Your task to perform on an android device: Check the news Image 0: 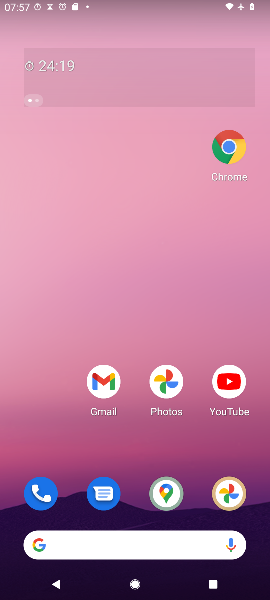
Step 0: press home button
Your task to perform on an android device: Check the news Image 1: 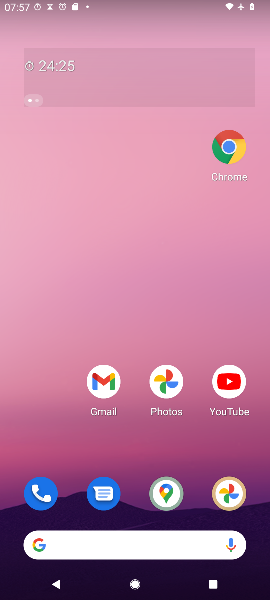
Step 1: click (37, 550)
Your task to perform on an android device: Check the news Image 2: 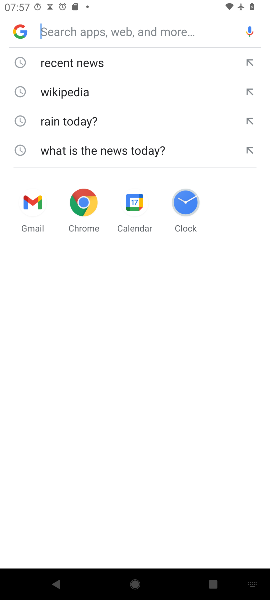
Step 2: type "news"
Your task to perform on an android device: Check the news Image 3: 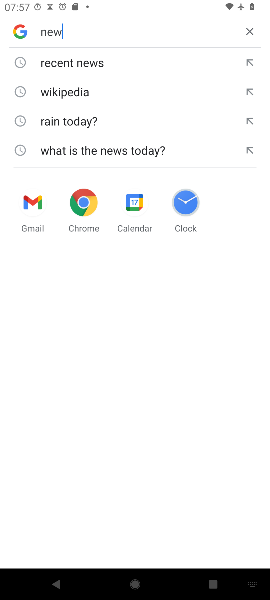
Step 3: press enter
Your task to perform on an android device: Check the news Image 4: 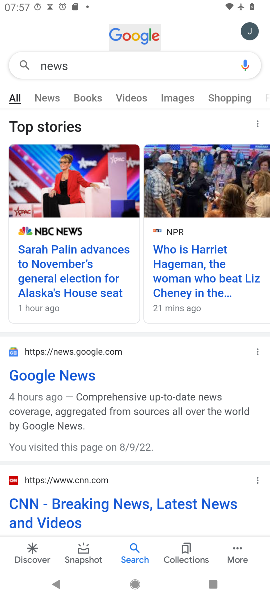
Step 4: task complete